Your task to perform on an android device: turn on sleep mode Image 0: 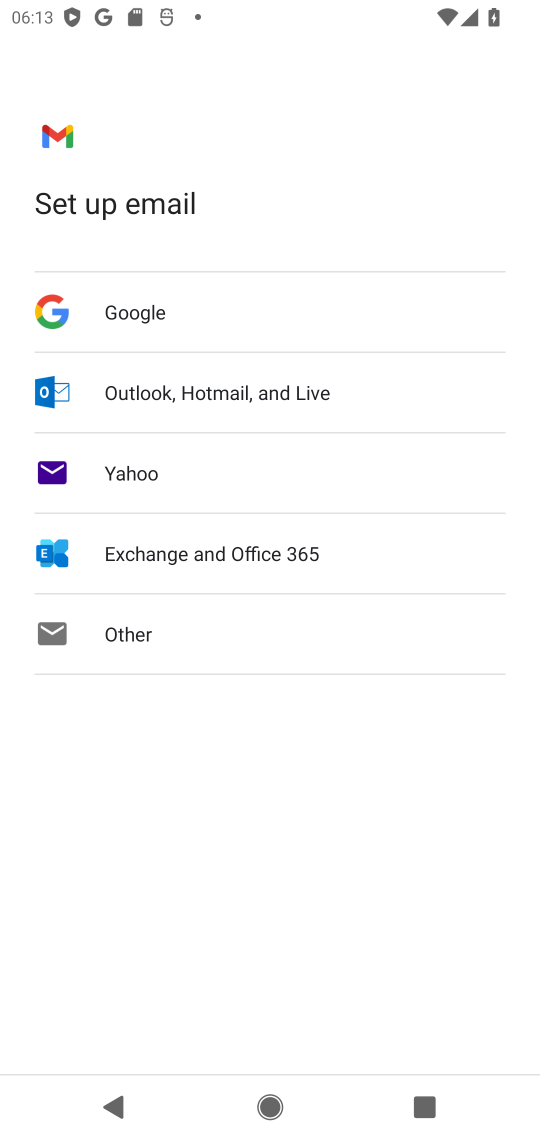
Step 0: press home button
Your task to perform on an android device: turn on sleep mode Image 1: 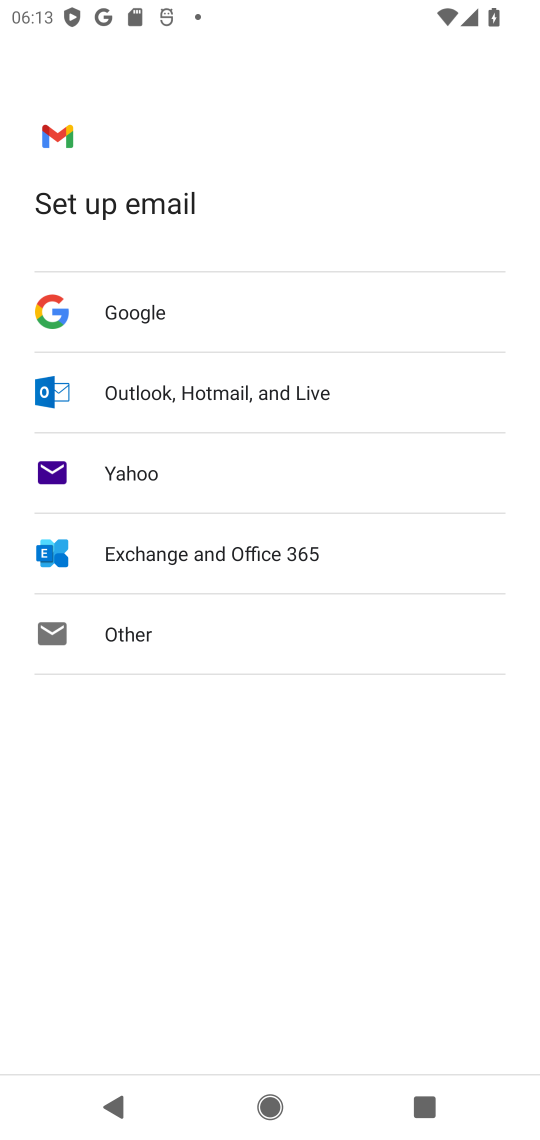
Step 1: press home button
Your task to perform on an android device: turn on sleep mode Image 2: 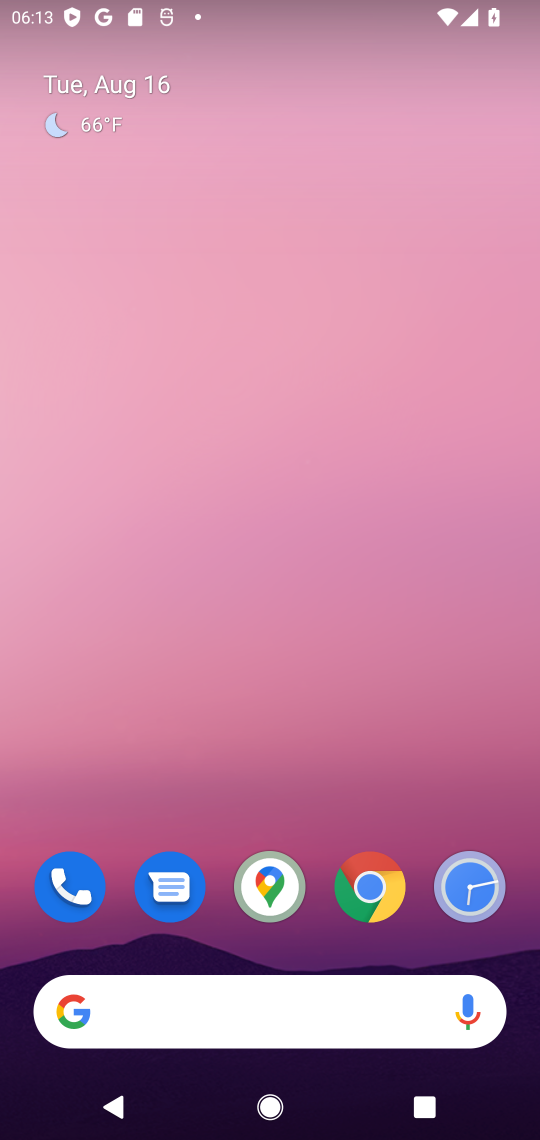
Step 2: drag from (396, 803) to (484, 181)
Your task to perform on an android device: turn on sleep mode Image 3: 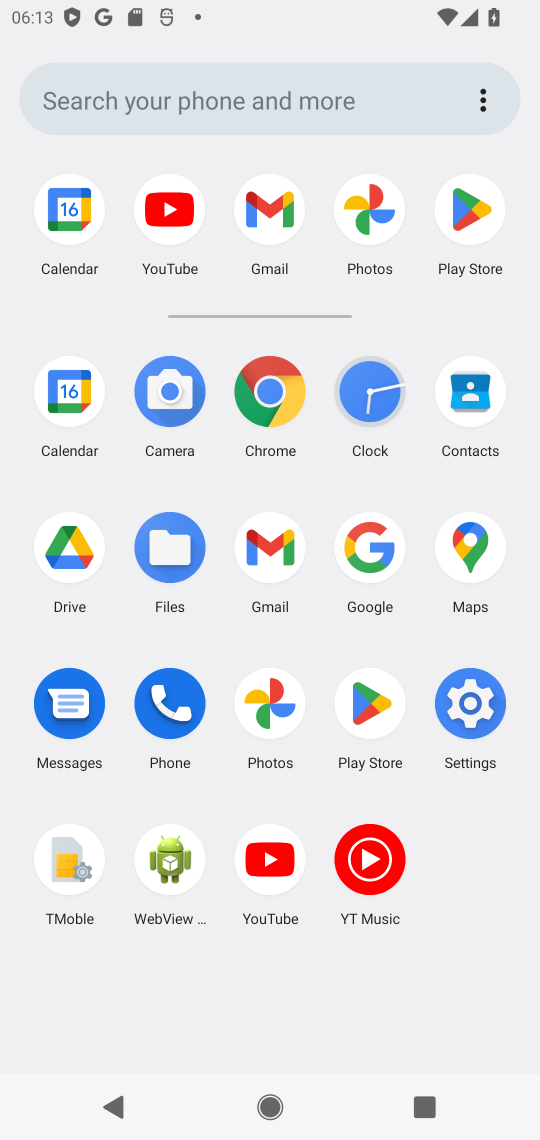
Step 3: click (475, 703)
Your task to perform on an android device: turn on sleep mode Image 4: 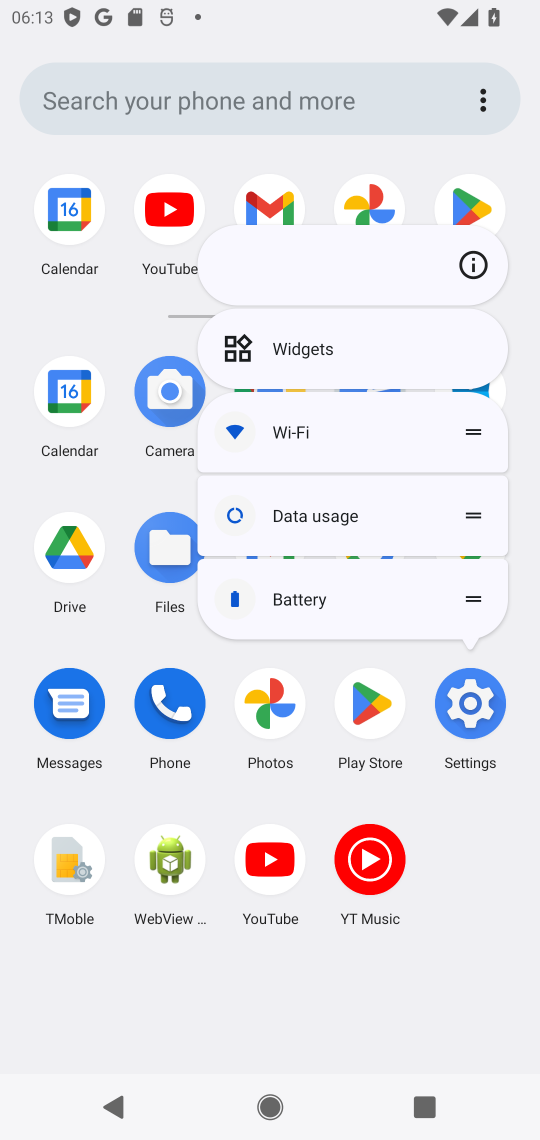
Step 4: click (475, 703)
Your task to perform on an android device: turn on sleep mode Image 5: 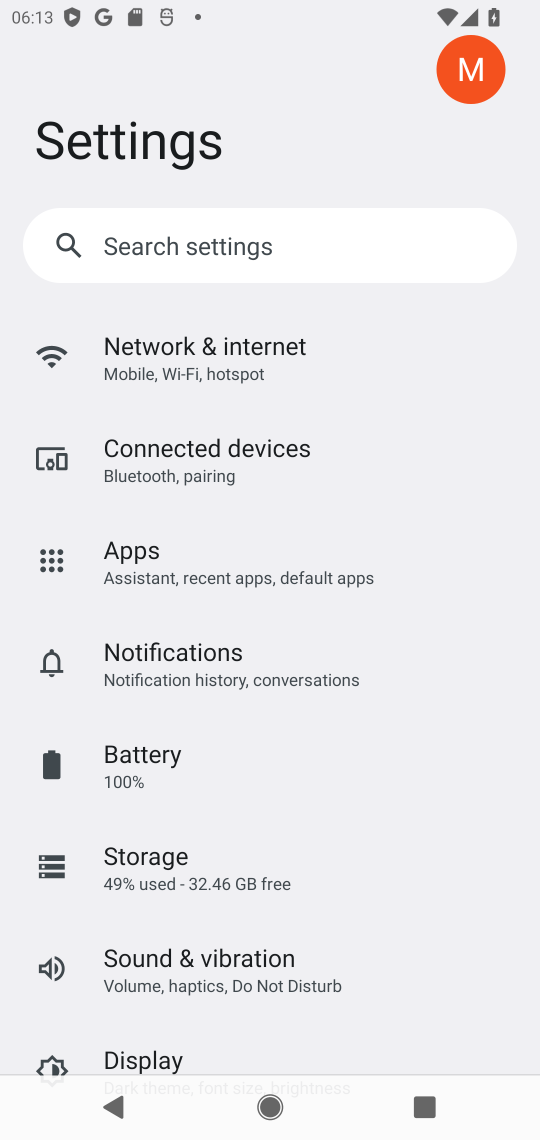
Step 5: drag from (392, 887) to (426, 533)
Your task to perform on an android device: turn on sleep mode Image 6: 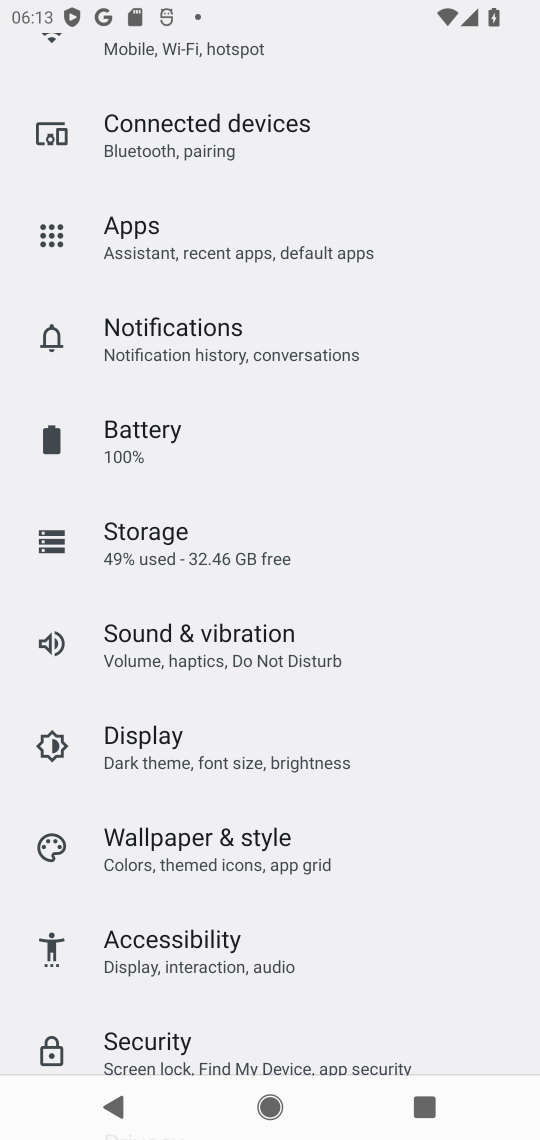
Step 6: drag from (376, 428) to (350, 1005)
Your task to perform on an android device: turn on sleep mode Image 7: 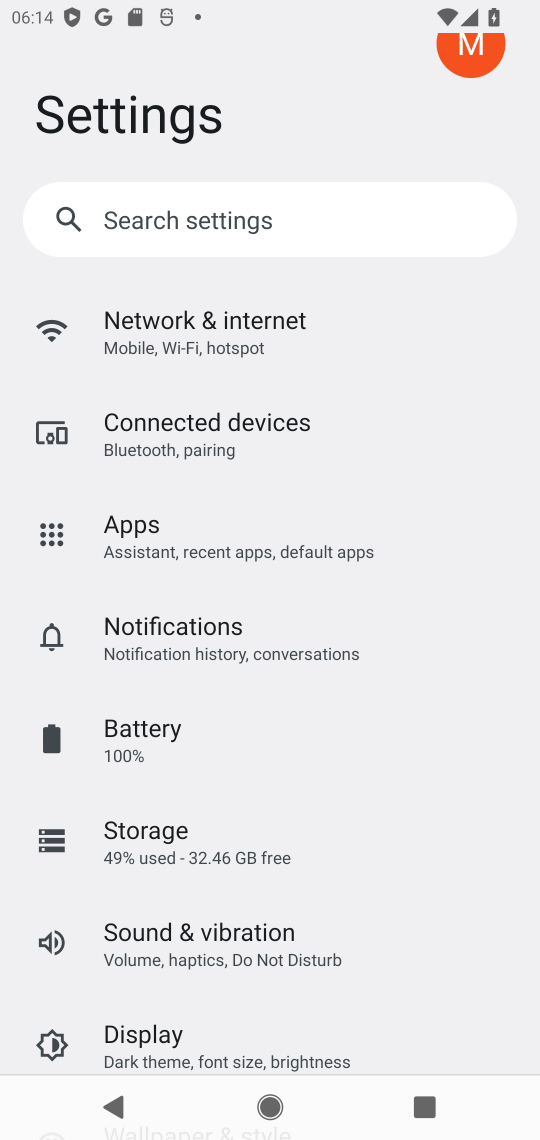
Step 7: drag from (367, 811) to (390, 219)
Your task to perform on an android device: turn on sleep mode Image 8: 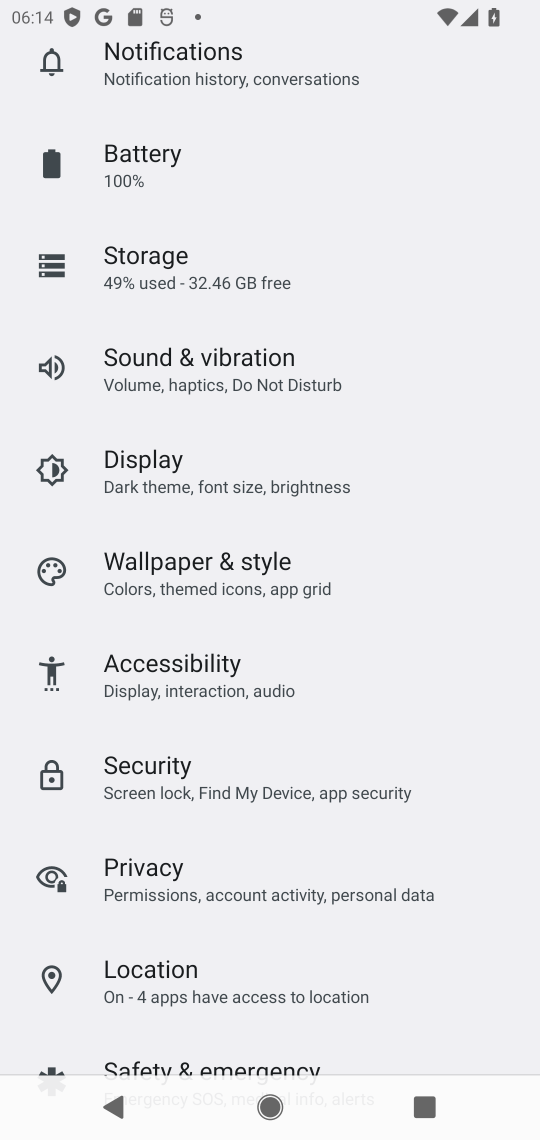
Step 8: click (172, 462)
Your task to perform on an android device: turn on sleep mode Image 9: 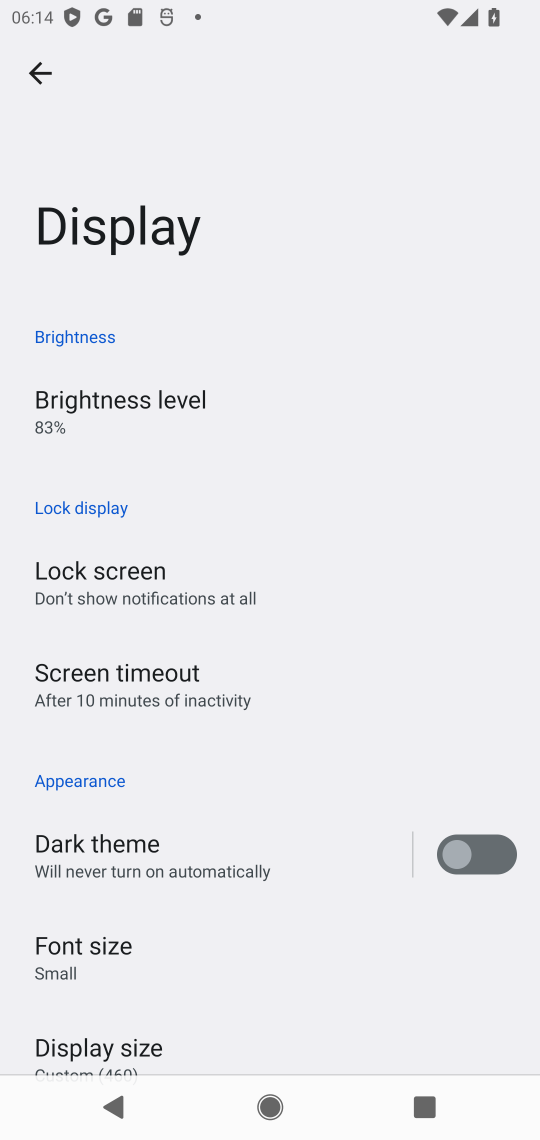
Step 9: click (156, 675)
Your task to perform on an android device: turn on sleep mode Image 10: 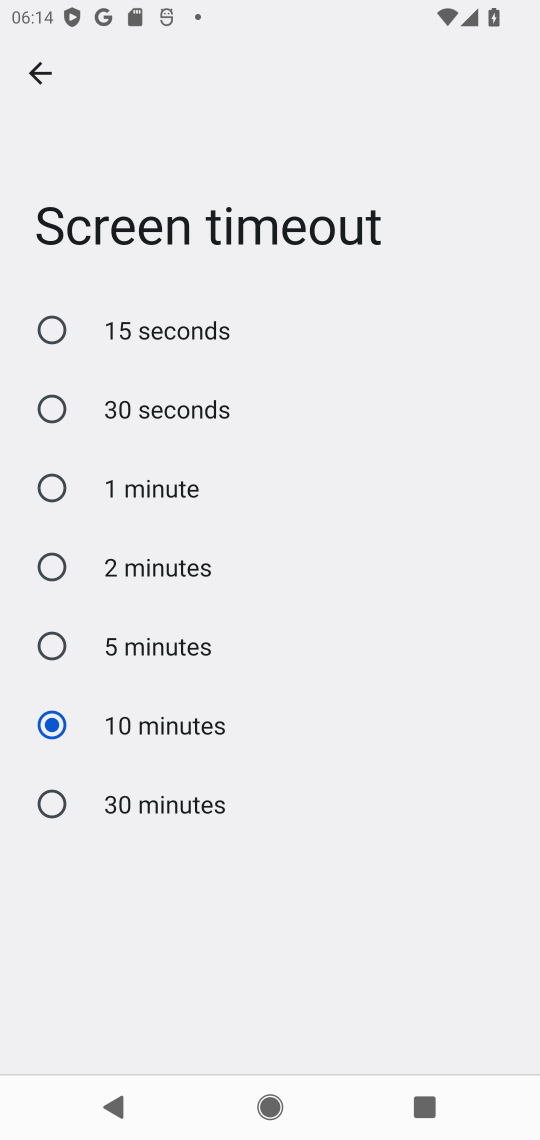
Step 10: task complete